Your task to perform on an android device: open a new tab in the chrome app Image 0: 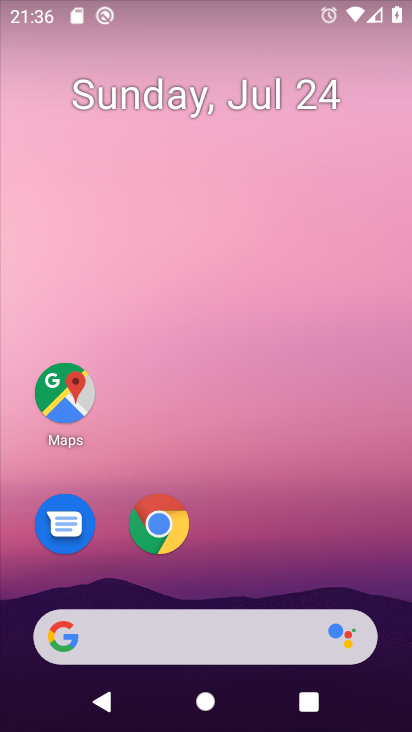
Step 0: click (160, 521)
Your task to perform on an android device: open a new tab in the chrome app Image 1: 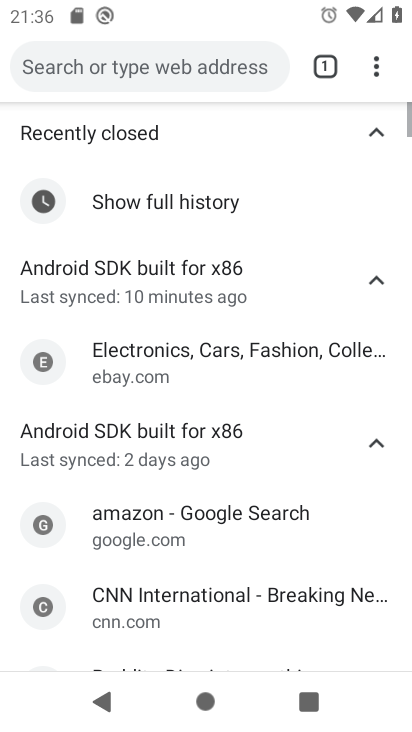
Step 1: click (377, 63)
Your task to perform on an android device: open a new tab in the chrome app Image 2: 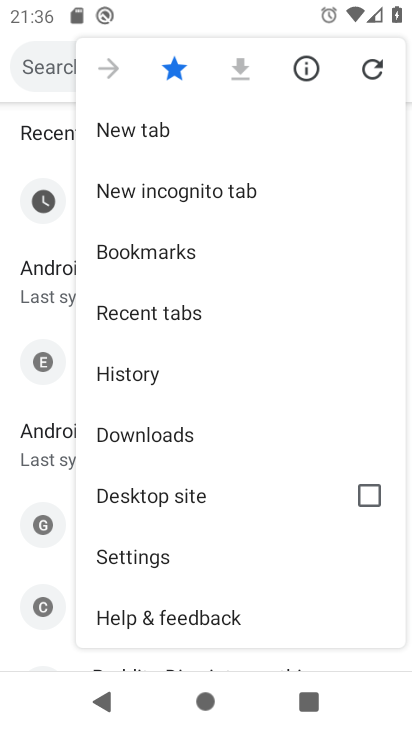
Step 2: click (186, 123)
Your task to perform on an android device: open a new tab in the chrome app Image 3: 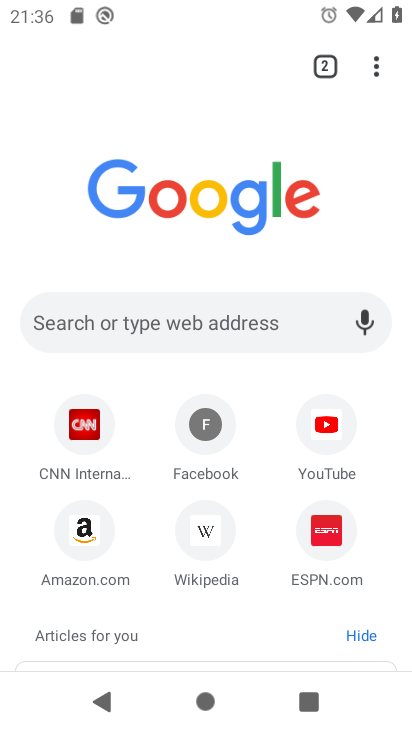
Step 3: task complete